Your task to perform on an android device: Check the news Image 0: 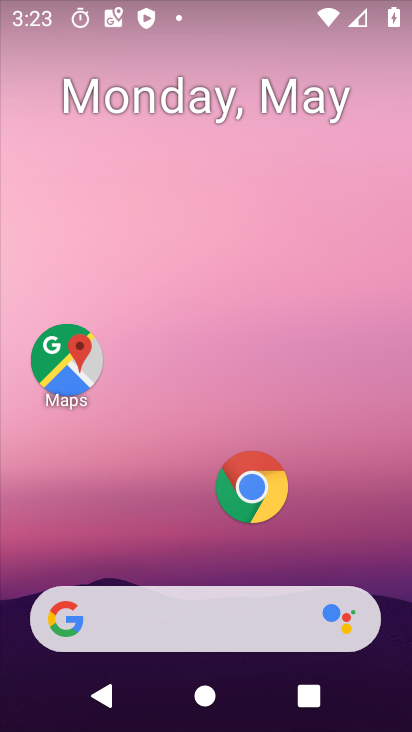
Step 0: click (135, 622)
Your task to perform on an android device: Check the news Image 1: 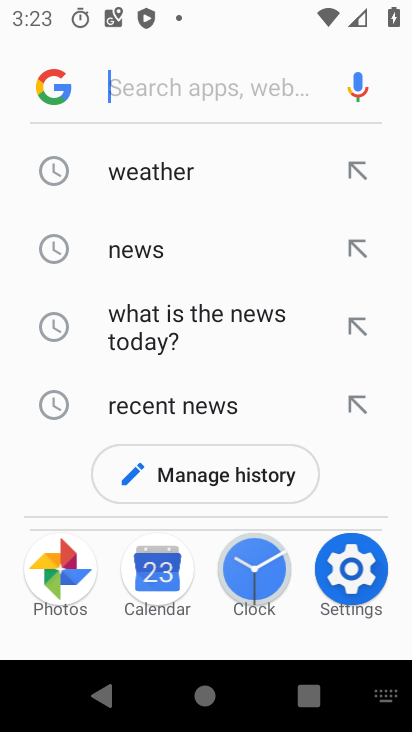
Step 1: type "news"
Your task to perform on an android device: Check the news Image 2: 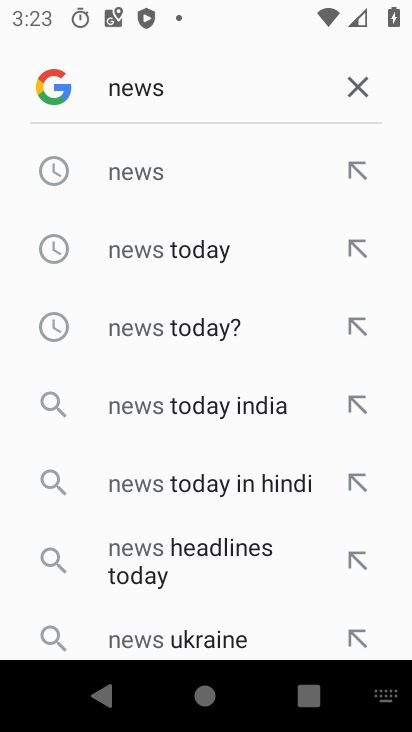
Step 2: click (112, 164)
Your task to perform on an android device: Check the news Image 3: 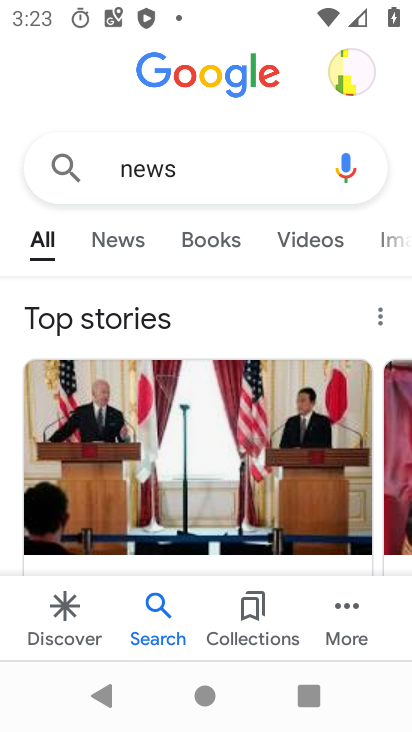
Step 3: click (130, 243)
Your task to perform on an android device: Check the news Image 4: 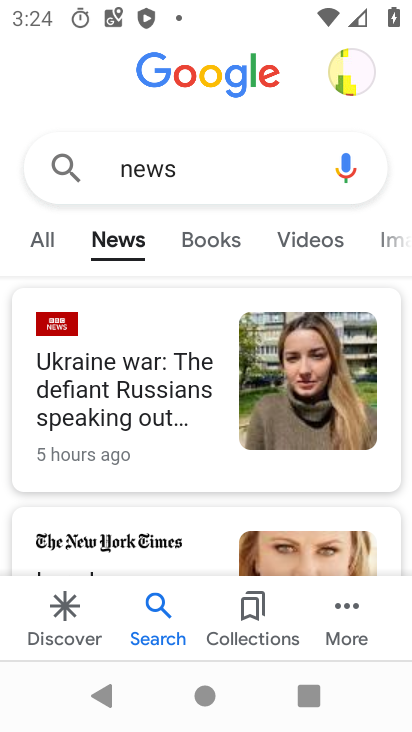
Step 4: task complete